Your task to perform on an android device: Go to notification settings Image 0: 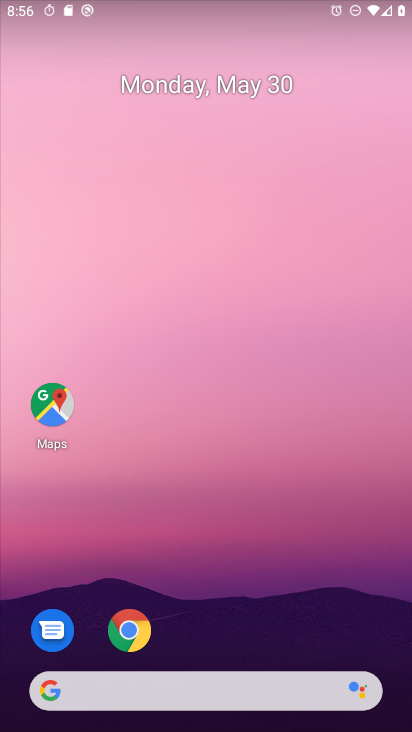
Step 0: drag from (335, 638) to (243, 48)
Your task to perform on an android device: Go to notification settings Image 1: 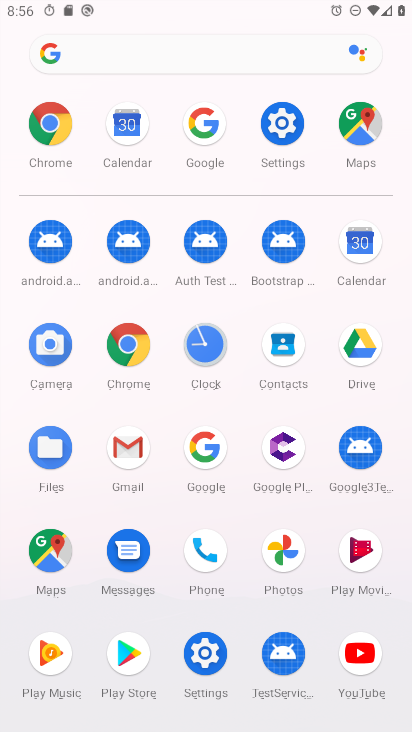
Step 1: click (185, 649)
Your task to perform on an android device: Go to notification settings Image 2: 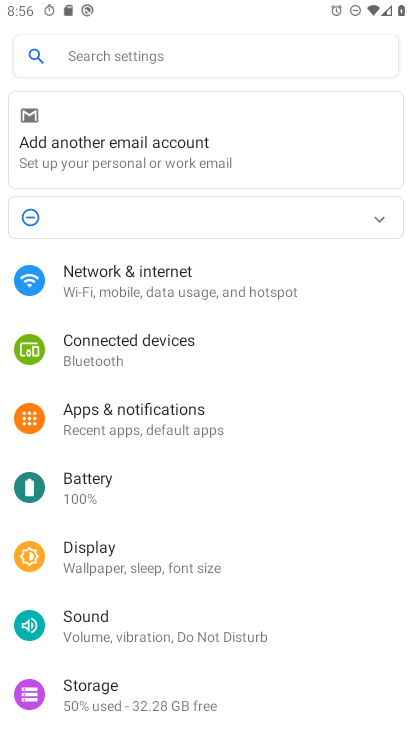
Step 2: click (197, 425)
Your task to perform on an android device: Go to notification settings Image 3: 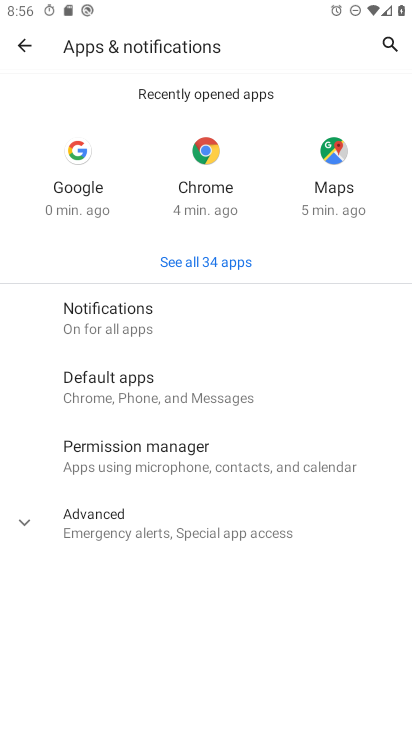
Step 3: click (180, 310)
Your task to perform on an android device: Go to notification settings Image 4: 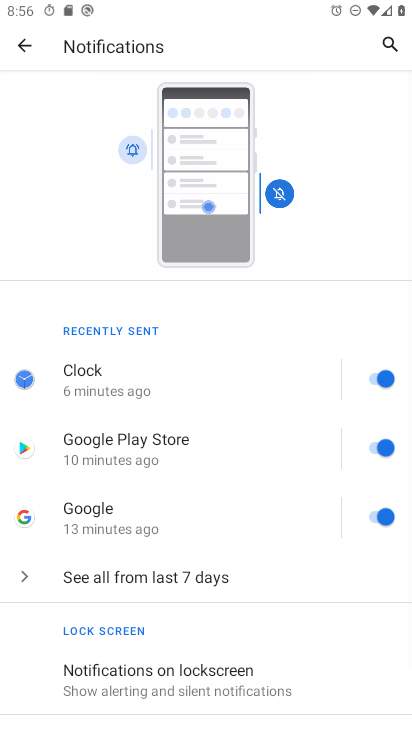
Step 4: task complete